Your task to perform on an android device: see sites visited before in the chrome app Image 0: 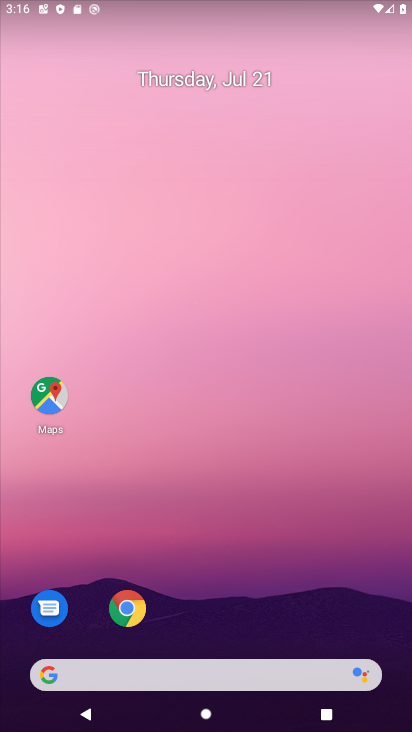
Step 0: drag from (357, 673) to (409, 678)
Your task to perform on an android device: see sites visited before in the chrome app Image 1: 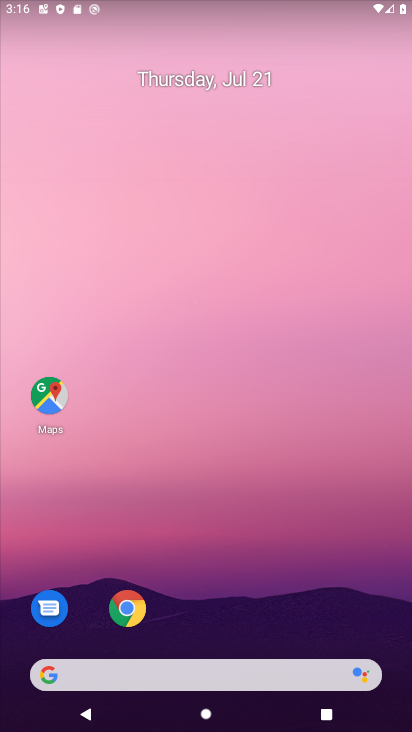
Step 1: drag from (356, 629) to (307, 161)
Your task to perform on an android device: see sites visited before in the chrome app Image 2: 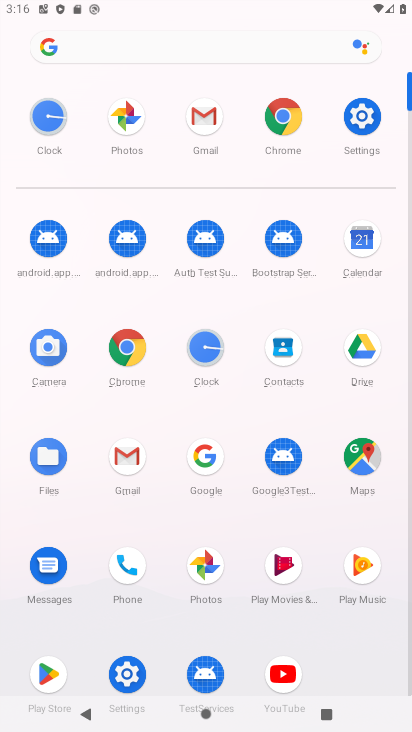
Step 2: click (130, 351)
Your task to perform on an android device: see sites visited before in the chrome app Image 3: 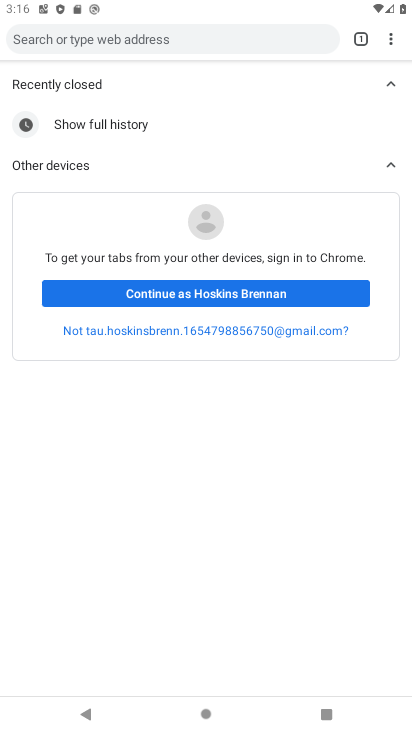
Step 3: task complete